Your task to perform on an android device: move an email to a new category in the gmail app Image 0: 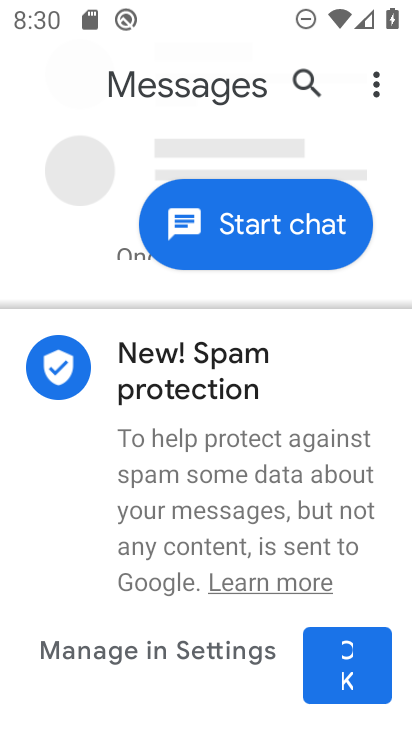
Step 0: press home button
Your task to perform on an android device: move an email to a new category in the gmail app Image 1: 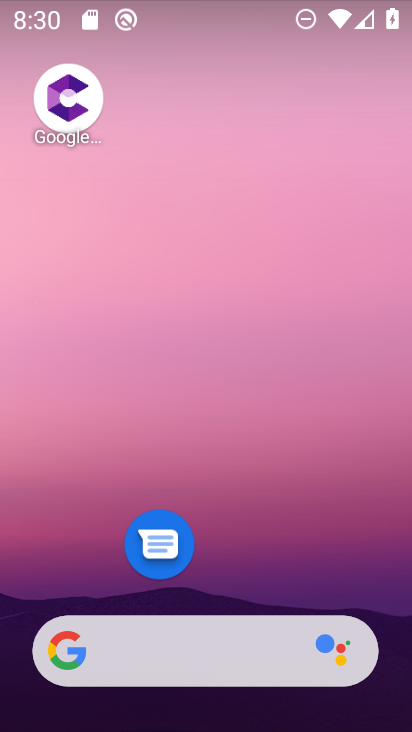
Step 1: click (241, 94)
Your task to perform on an android device: move an email to a new category in the gmail app Image 2: 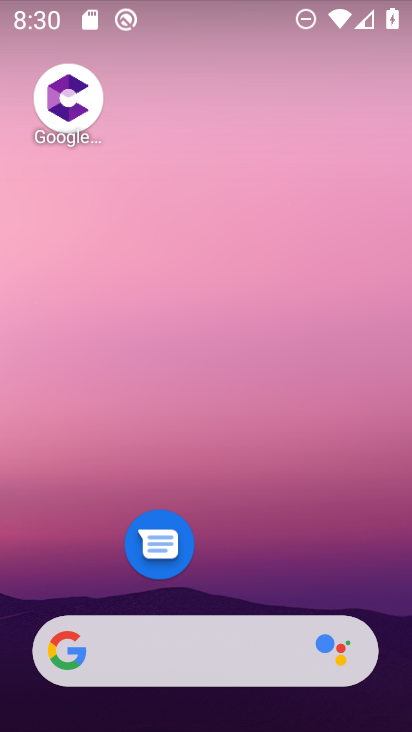
Step 2: drag from (231, 592) to (243, 88)
Your task to perform on an android device: move an email to a new category in the gmail app Image 3: 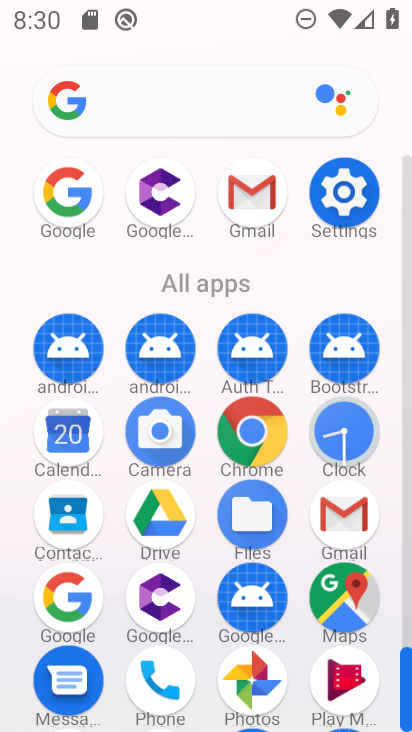
Step 3: click (254, 215)
Your task to perform on an android device: move an email to a new category in the gmail app Image 4: 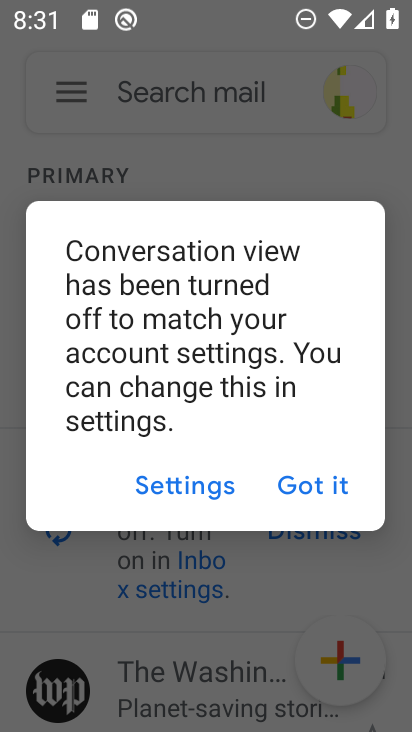
Step 4: click (302, 487)
Your task to perform on an android device: move an email to a new category in the gmail app Image 5: 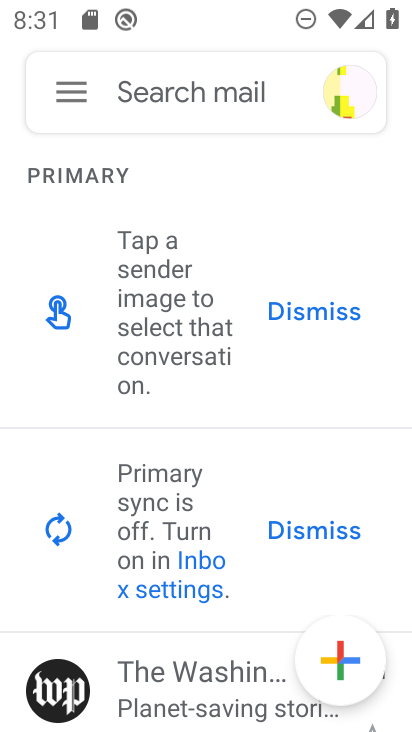
Step 5: click (76, 86)
Your task to perform on an android device: move an email to a new category in the gmail app Image 6: 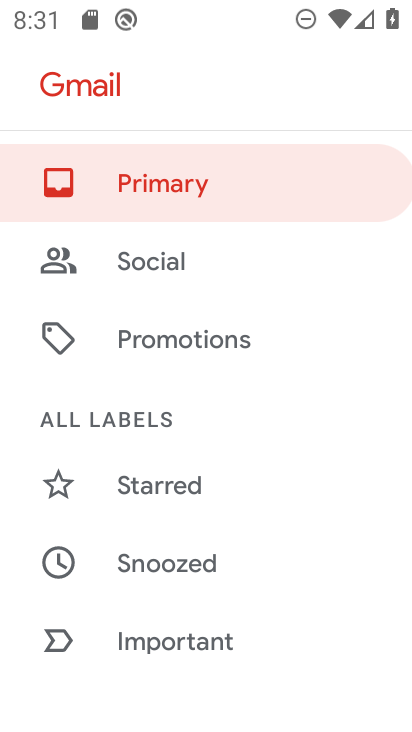
Step 6: drag from (231, 524) to (237, 137)
Your task to perform on an android device: move an email to a new category in the gmail app Image 7: 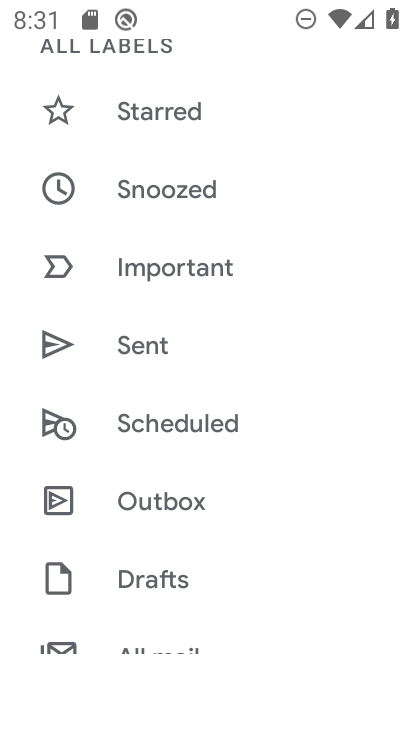
Step 7: drag from (203, 541) to (231, 206)
Your task to perform on an android device: move an email to a new category in the gmail app Image 8: 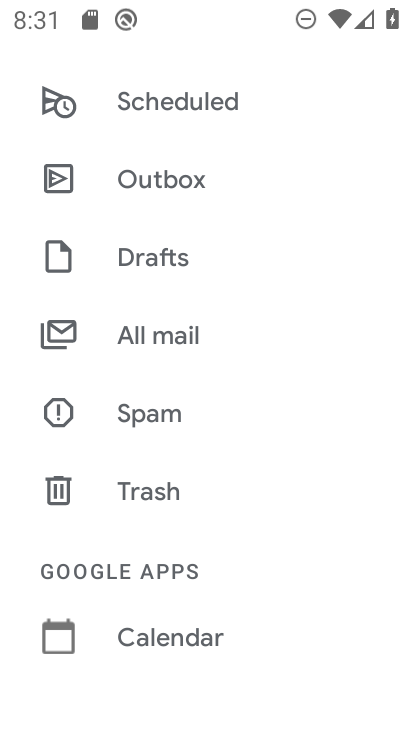
Step 8: click (171, 352)
Your task to perform on an android device: move an email to a new category in the gmail app Image 9: 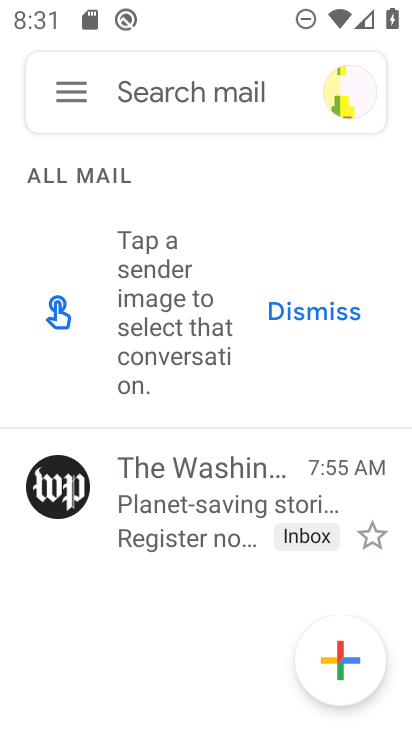
Step 9: click (194, 489)
Your task to perform on an android device: move an email to a new category in the gmail app Image 10: 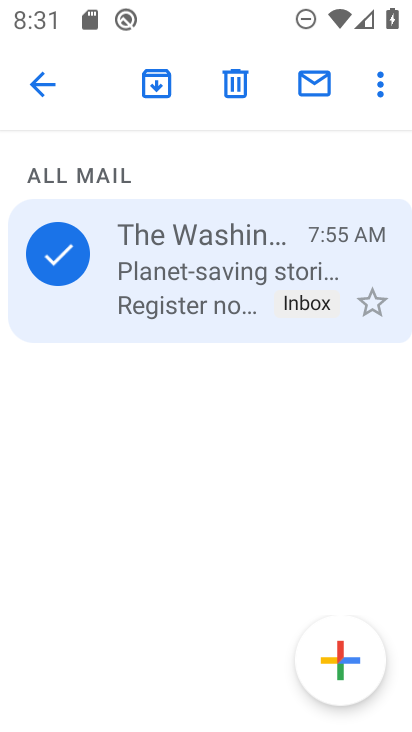
Step 10: click (373, 78)
Your task to perform on an android device: move an email to a new category in the gmail app Image 11: 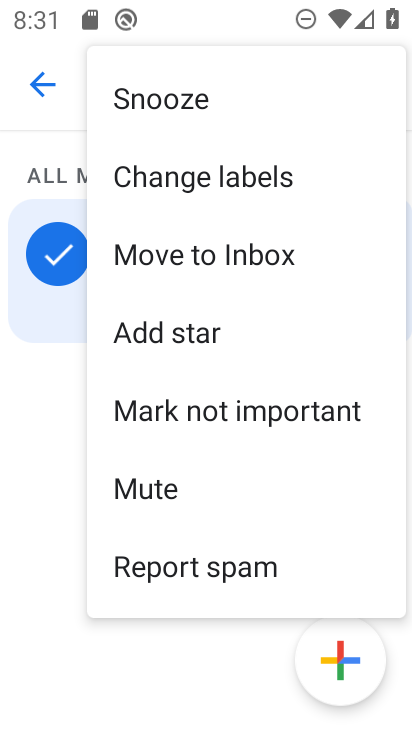
Step 11: click (246, 267)
Your task to perform on an android device: move an email to a new category in the gmail app Image 12: 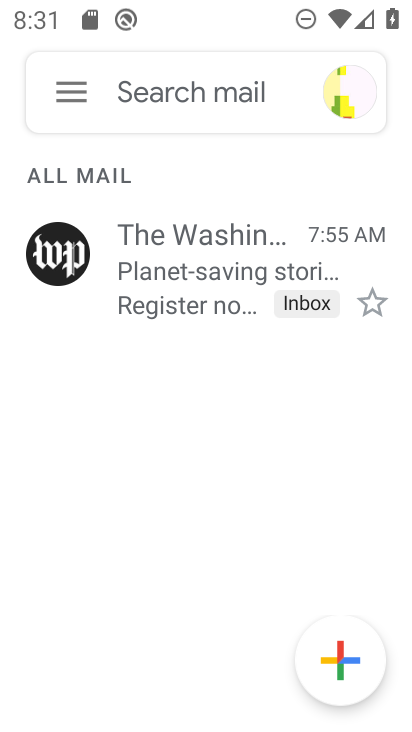
Step 12: task complete